Your task to perform on an android device: add a contact in the contacts app Image 0: 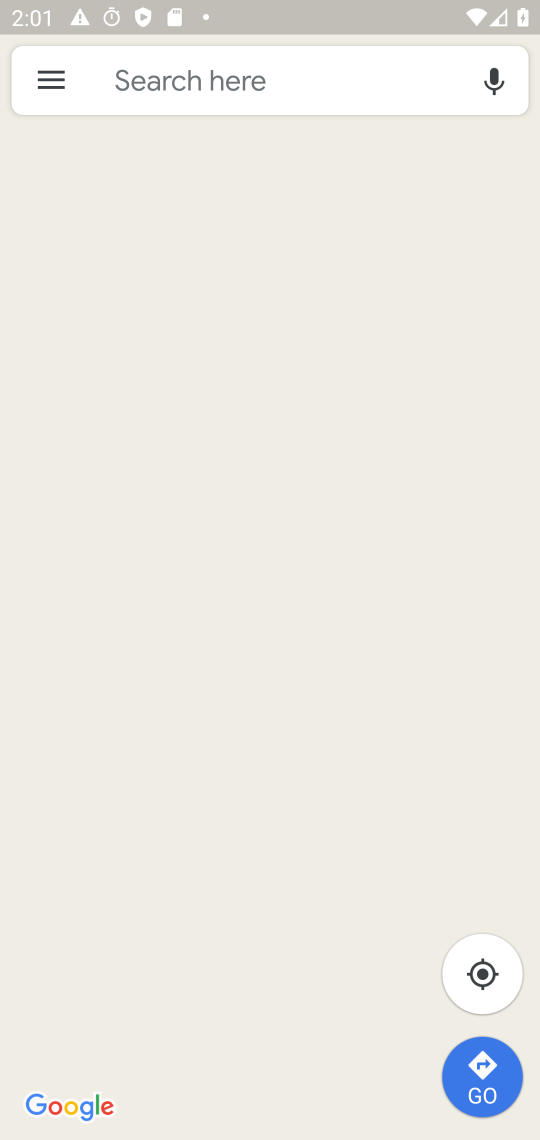
Step 0: press home button
Your task to perform on an android device: add a contact in the contacts app Image 1: 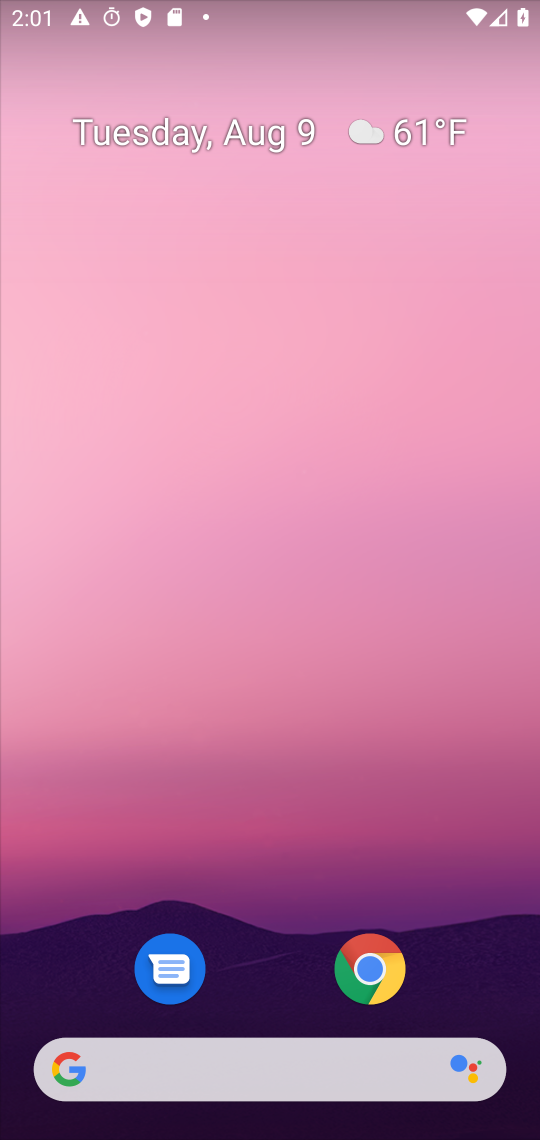
Step 1: drag from (348, 1113) to (312, 191)
Your task to perform on an android device: add a contact in the contacts app Image 2: 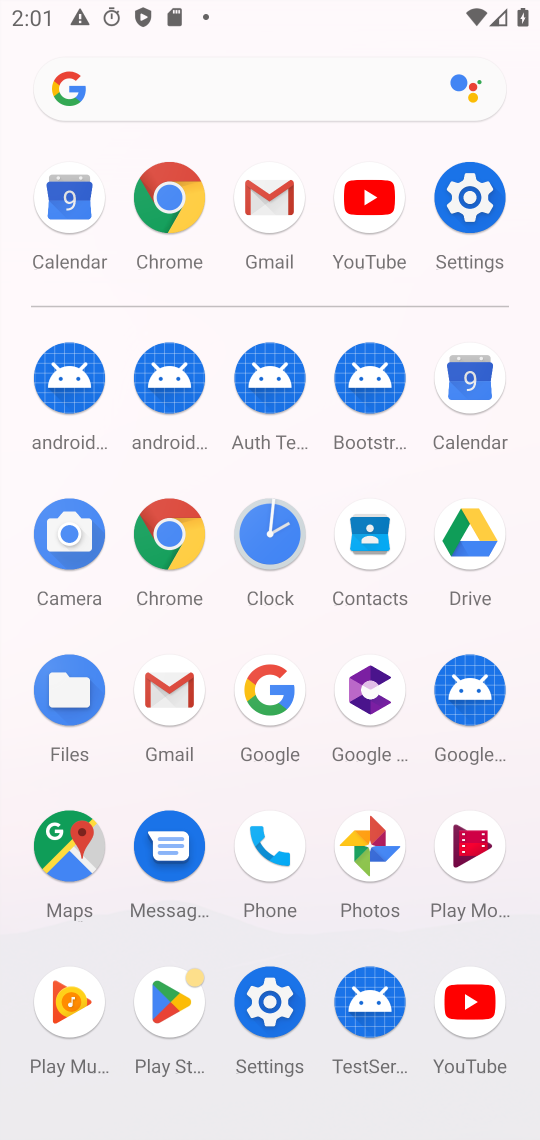
Step 2: click (255, 856)
Your task to perform on an android device: add a contact in the contacts app Image 3: 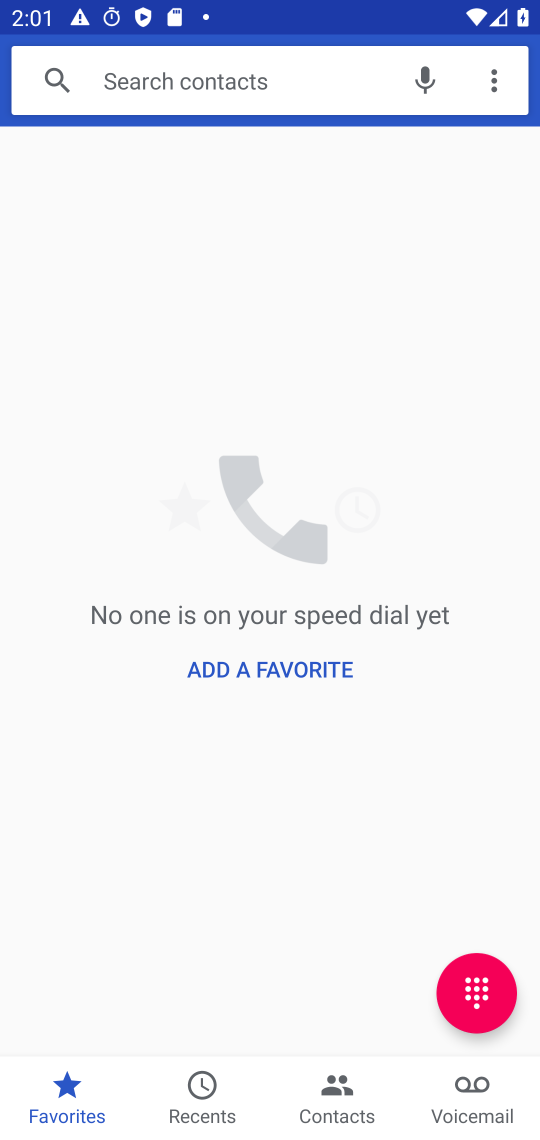
Step 3: click (326, 1083)
Your task to perform on an android device: add a contact in the contacts app Image 4: 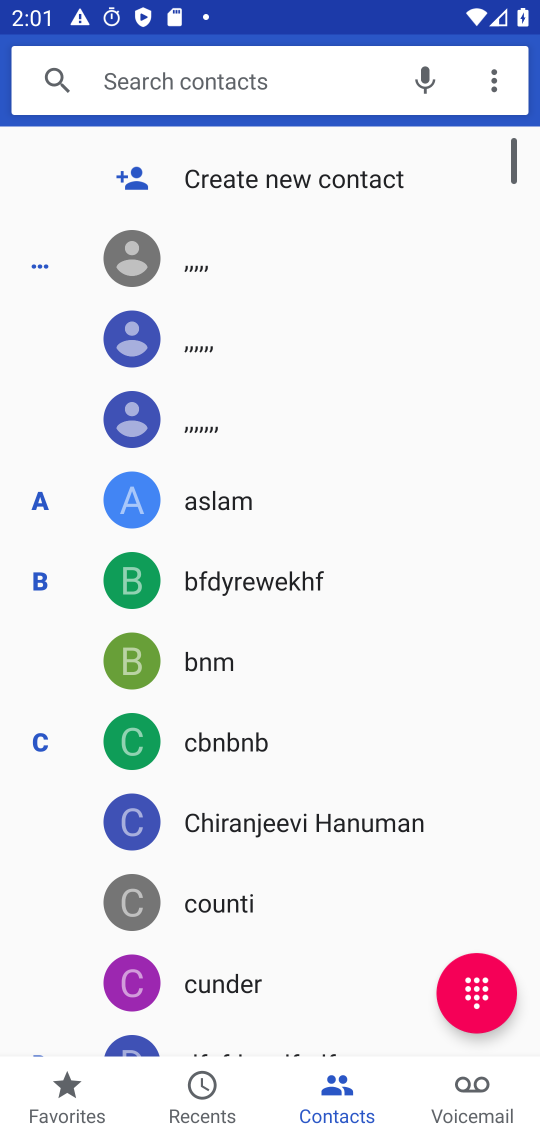
Step 4: click (279, 184)
Your task to perform on an android device: add a contact in the contacts app Image 5: 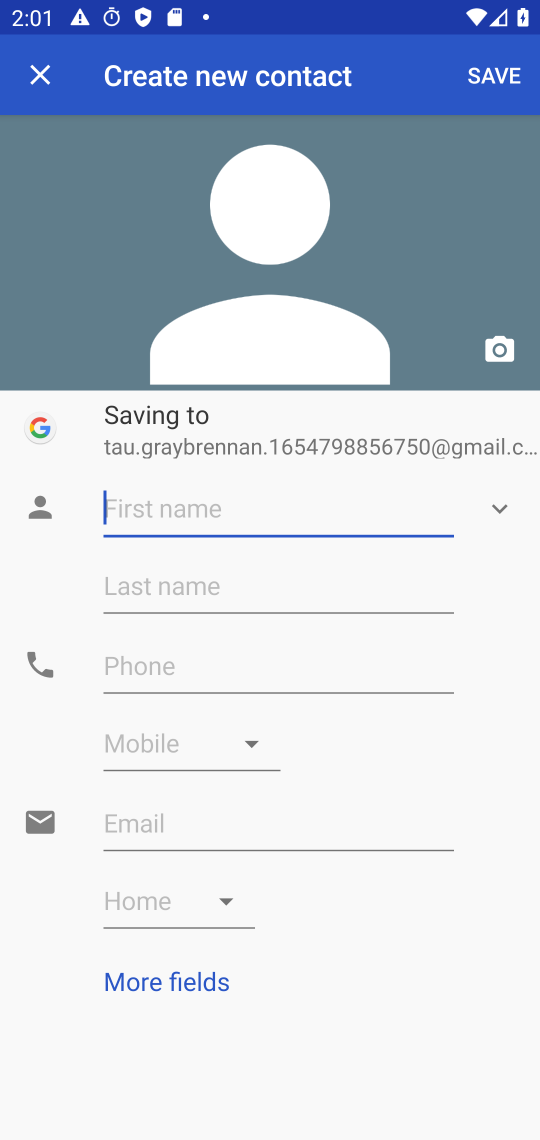
Step 5: click (150, 504)
Your task to perform on an android device: add a contact in the contacts app Image 6: 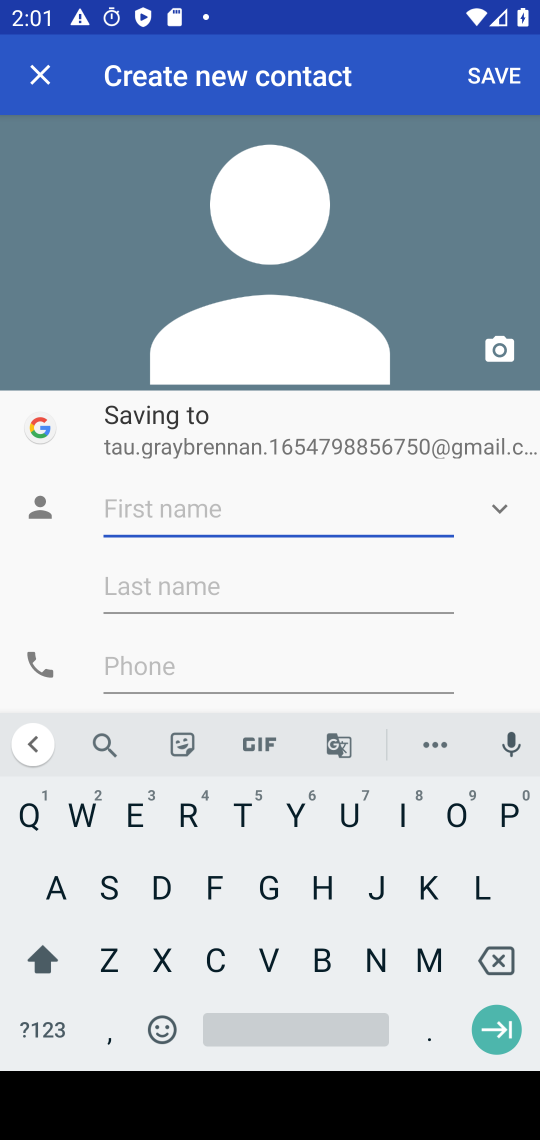
Step 6: click (188, 834)
Your task to perform on an android device: add a contact in the contacts app Image 7: 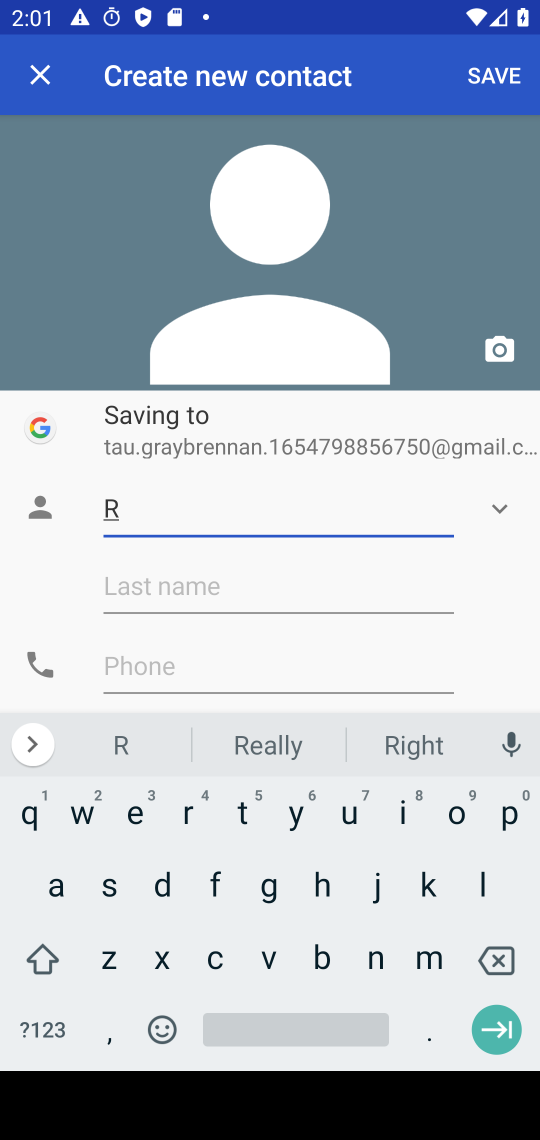
Step 7: click (288, 861)
Your task to perform on an android device: add a contact in the contacts app Image 8: 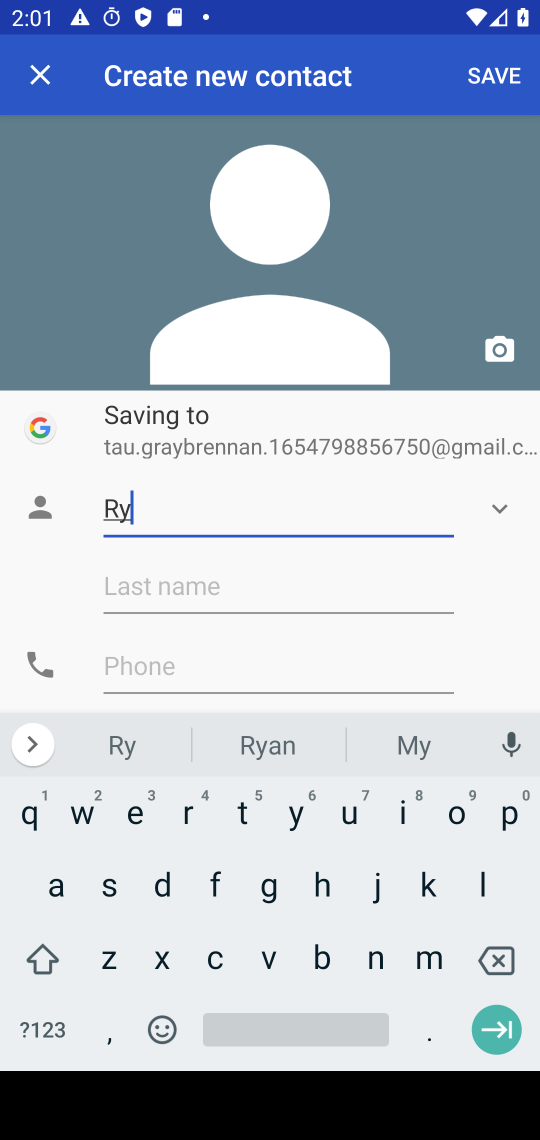
Step 8: click (288, 861)
Your task to perform on an android device: add a contact in the contacts app Image 9: 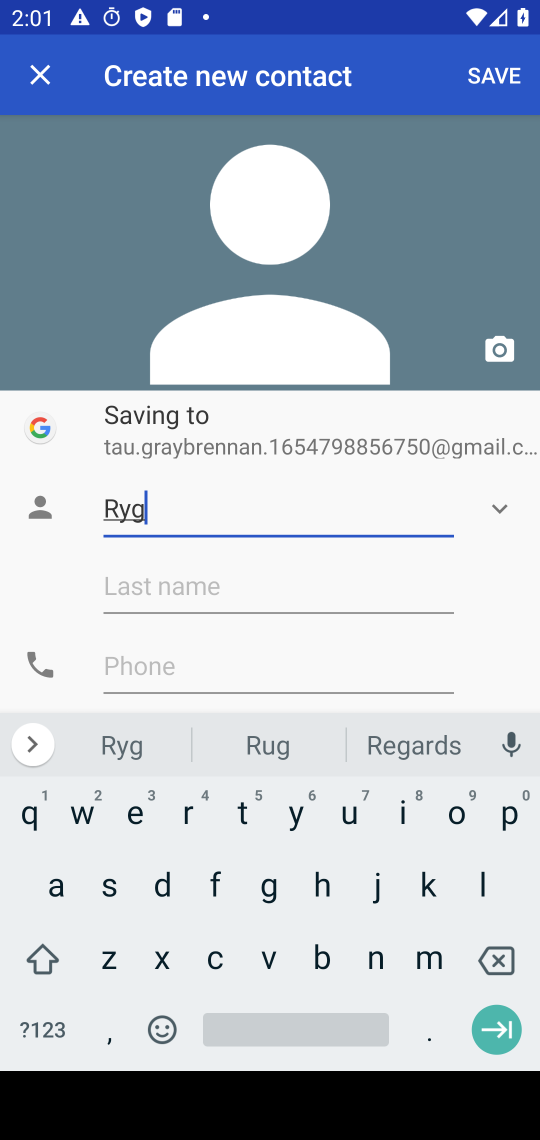
Step 9: click (206, 857)
Your task to perform on an android device: add a contact in the contacts app Image 10: 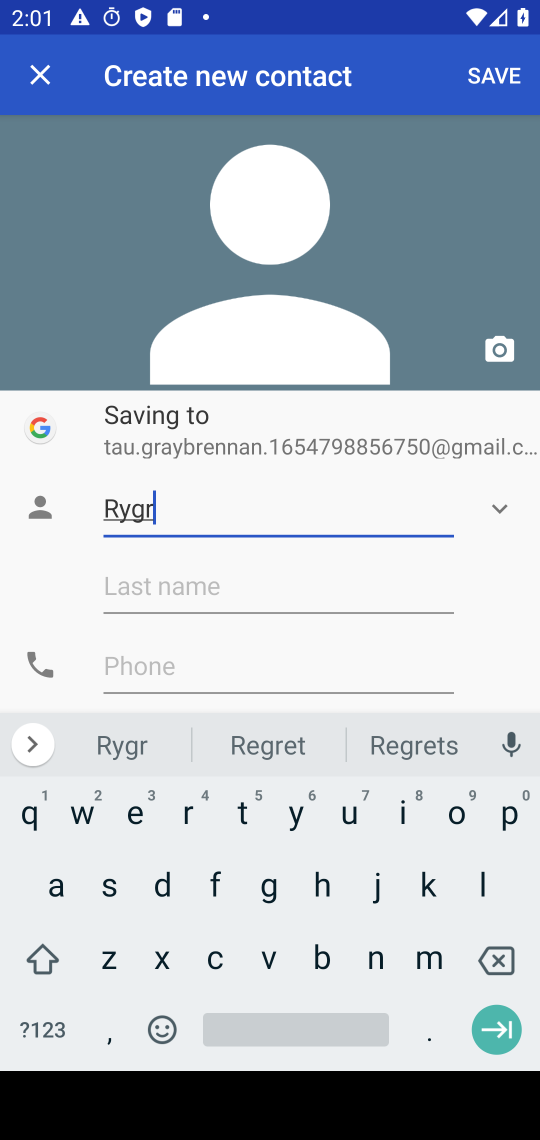
Step 10: click (335, 850)
Your task to perform on an android device: add a contact in the contacts app Image 11: 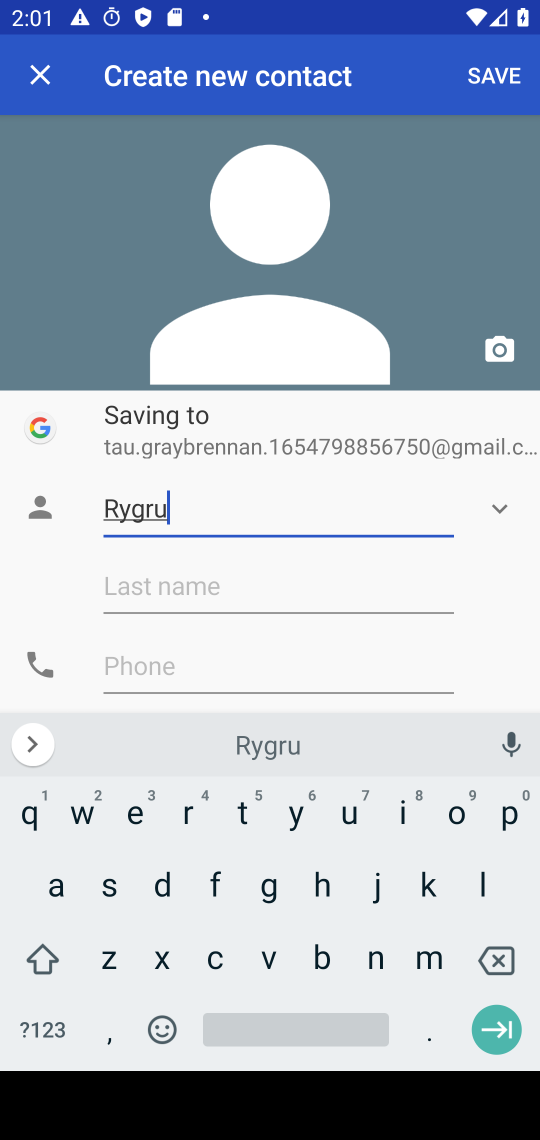
Step 11: click (172, 660)
Your task to perform on an android device: add a contact in the contacts app Image 12: 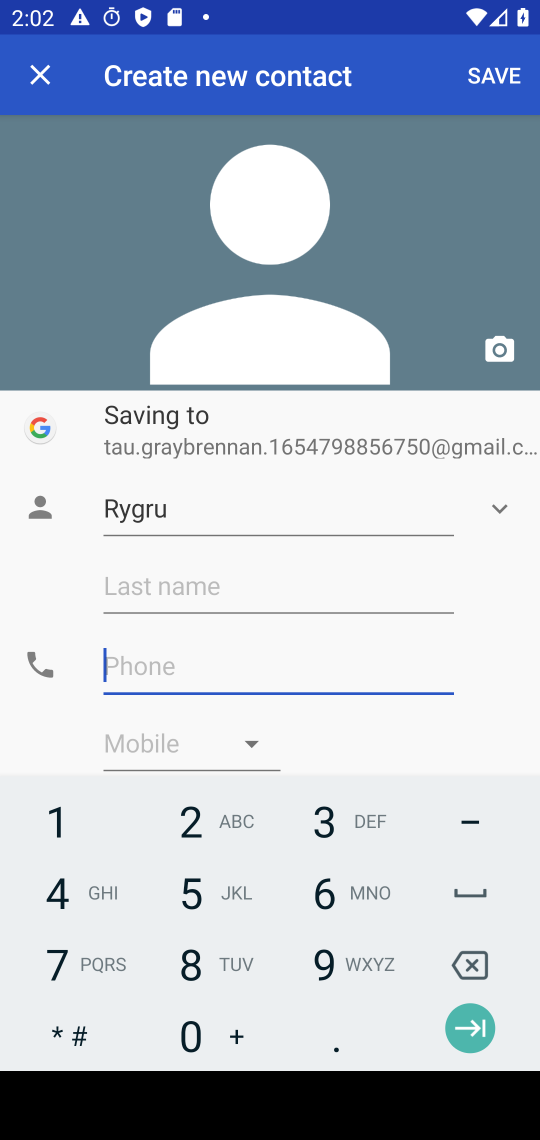
Step 12: click (370, 971)
Your task to perform on an android device: add a contact in the contacts app Image 13: 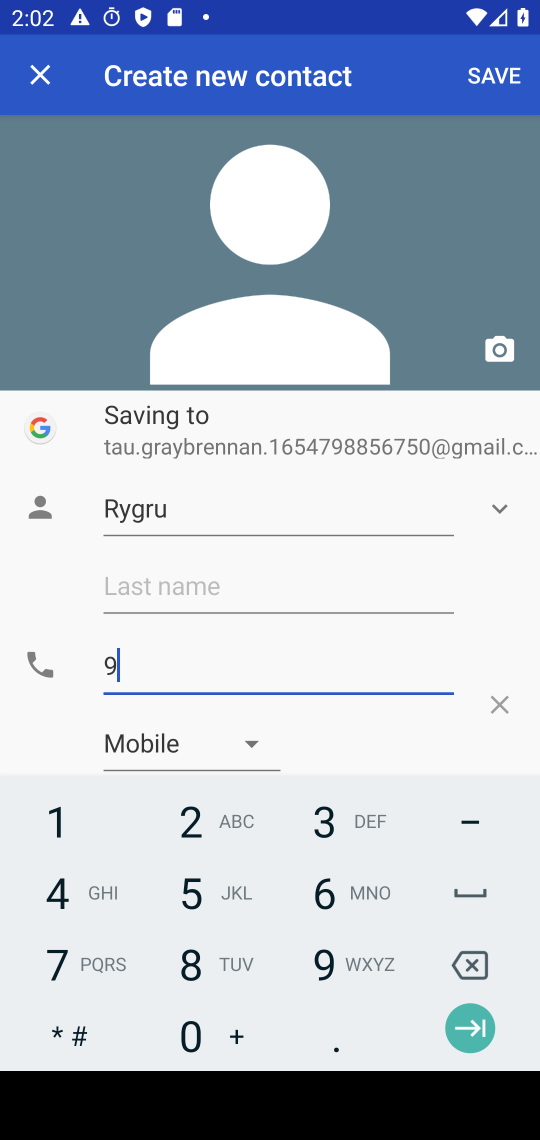
Step 13: click (294, 881)
Your task to perform on an android device: add a contact in the contacts app Image 14: 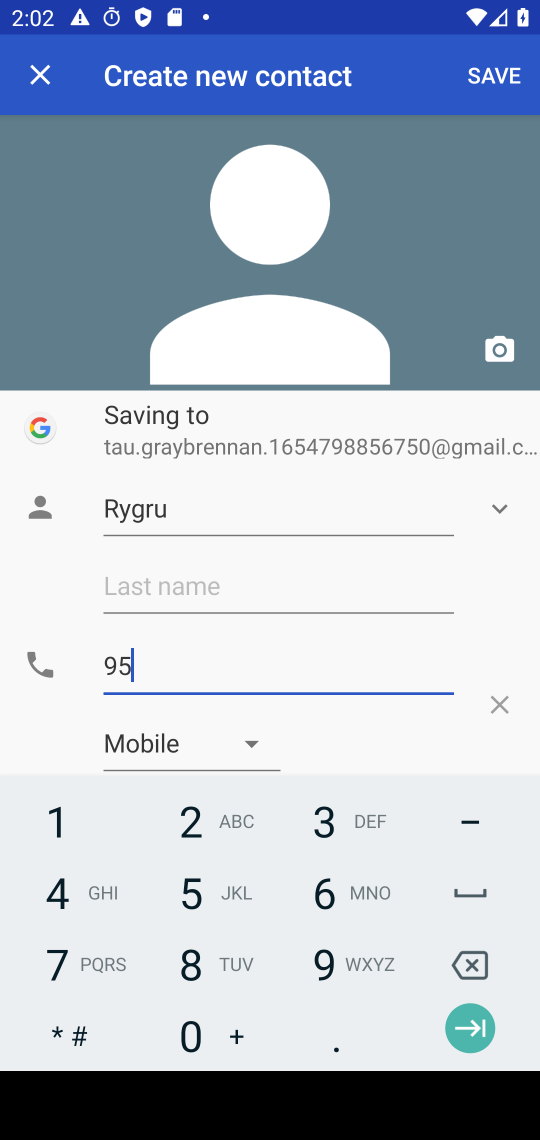
Step 14: click (266, 885)
Your task to perform on an android device: add a contact in the contacts app Image 15: 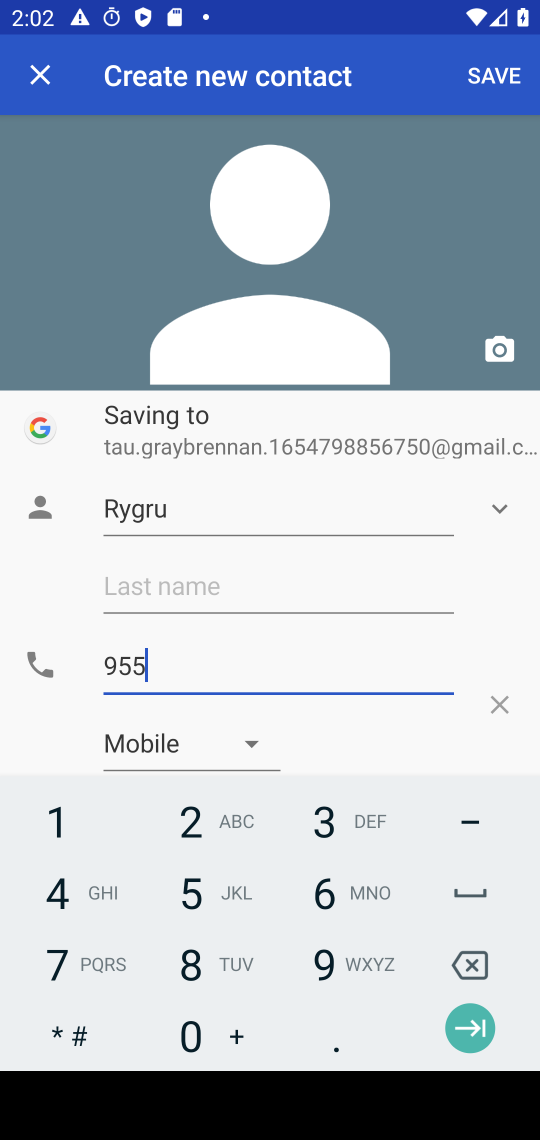
Step 15: click (266, 885)
Your task to perform on an android device: add a contact in the contacts app Image 16: 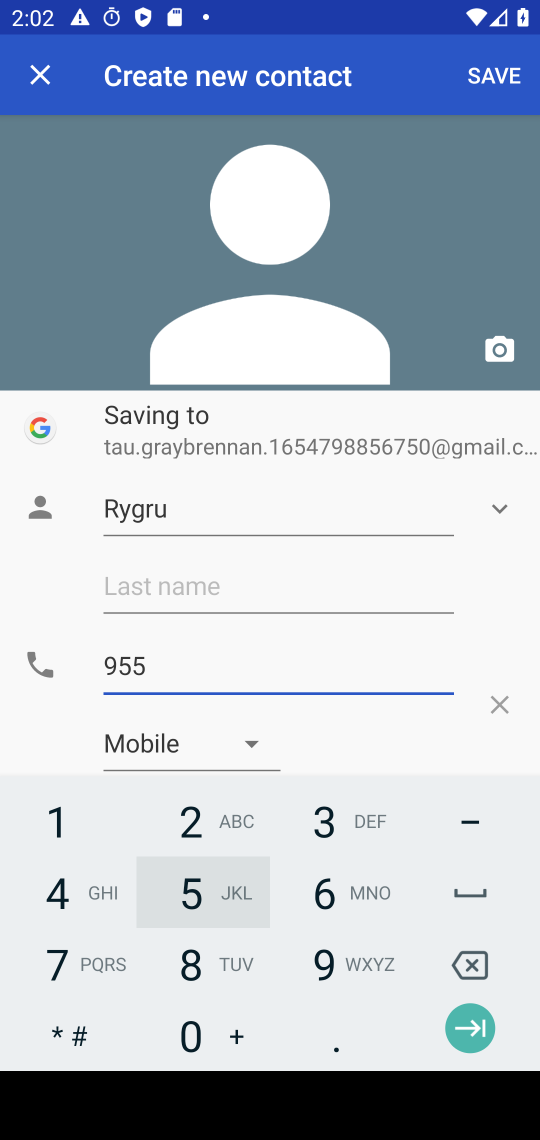
Step 16: click (266, 885)
Your task to perform on an android device: add a contact in the contacts app Image 17: 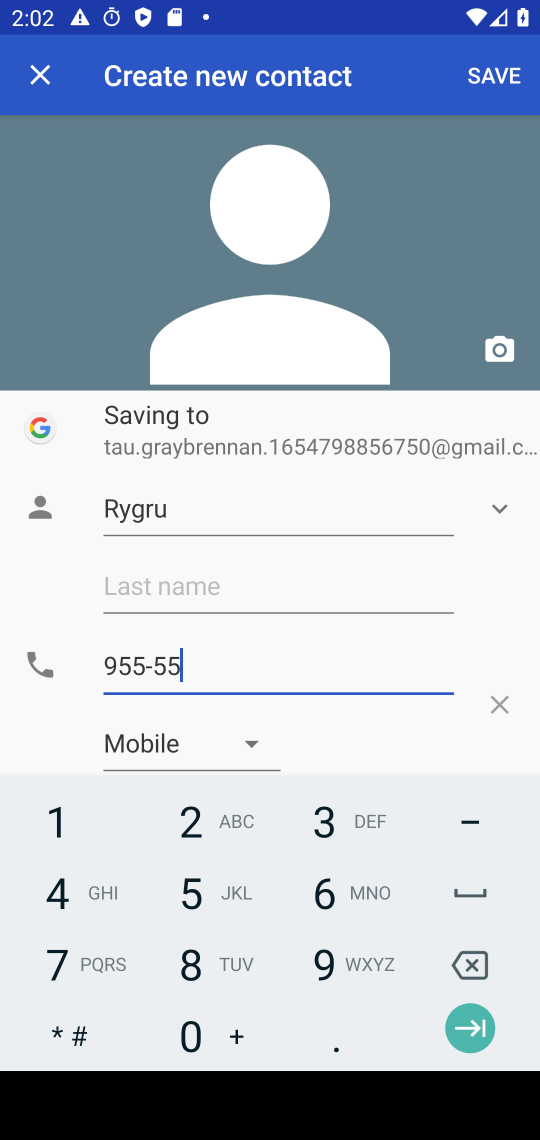
Step 17: click (317, 829)
Your task to perform on an android device: add a contact in the contacts app Image 18: 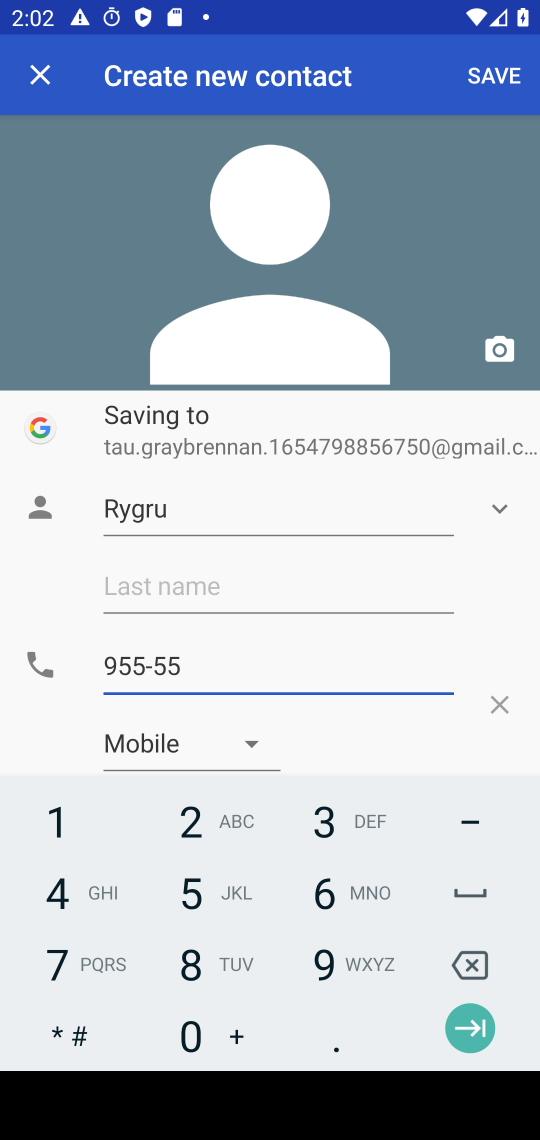
Step 18: click (317, 829)
Your task to perform on an android device: add a contact in the contacts app Image 19: 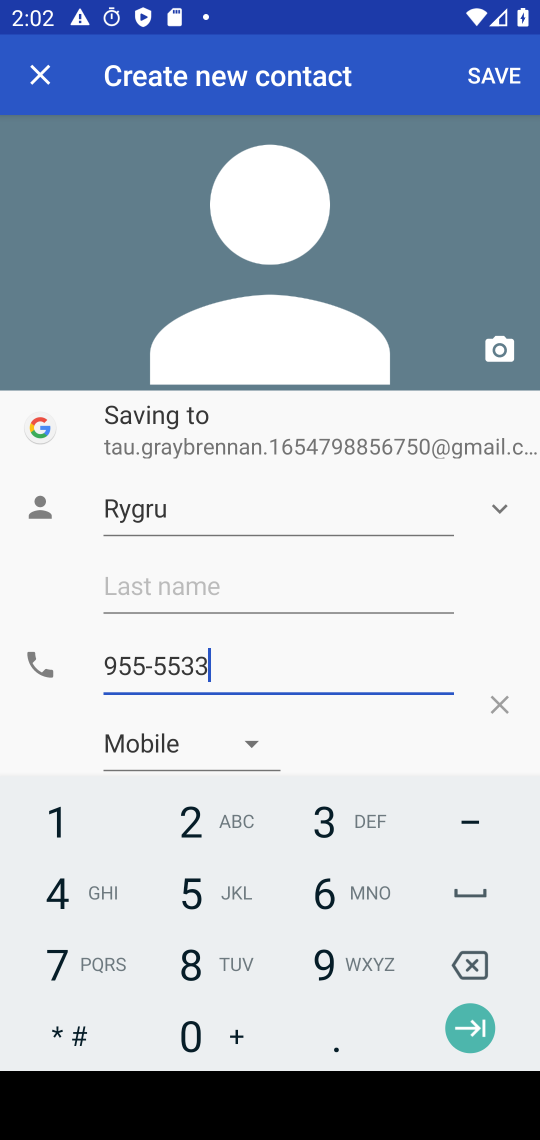
Step 19: click (71, 833)
Your task to perform on an android device: add a contact in the contacts app Image 20: 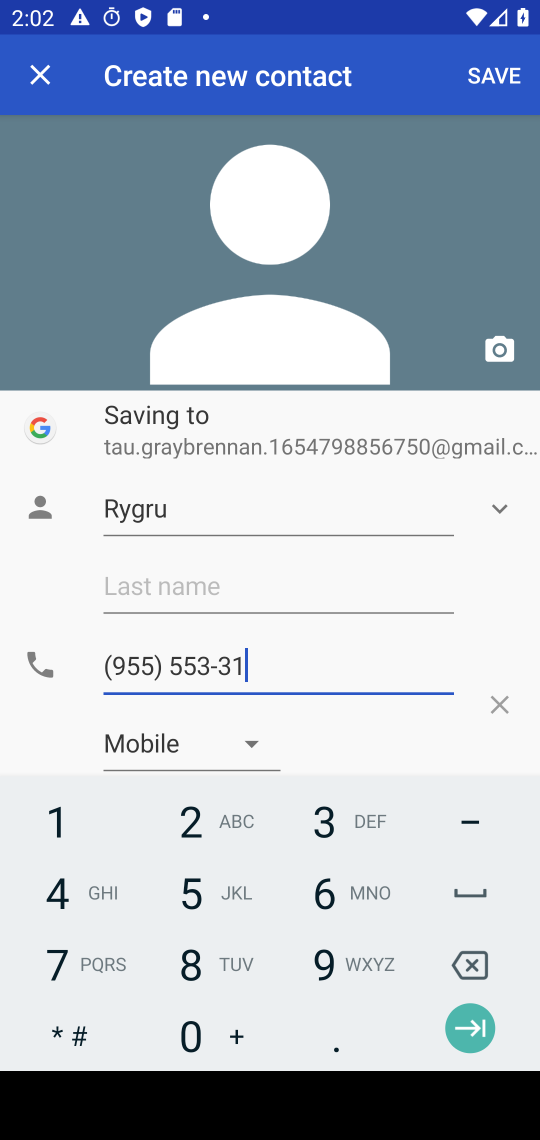
Step 20: click (71, 833)
Your task to perform on an android device: add a contact in the contacts app Image 21: 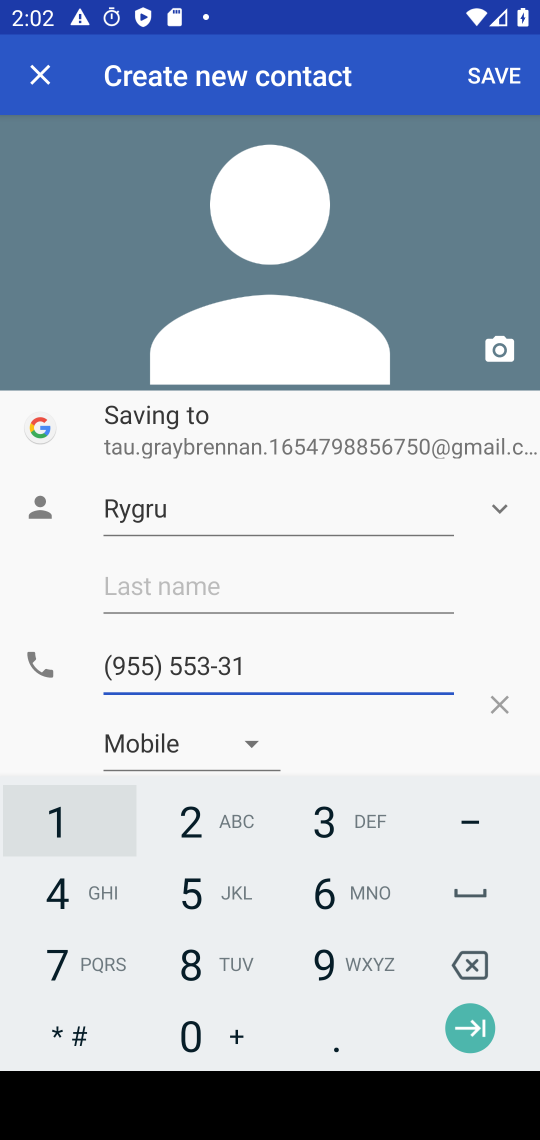
Step 21: click (71, 833)
Your task to perform on an android device: add a contact in the contacts app Image 22: 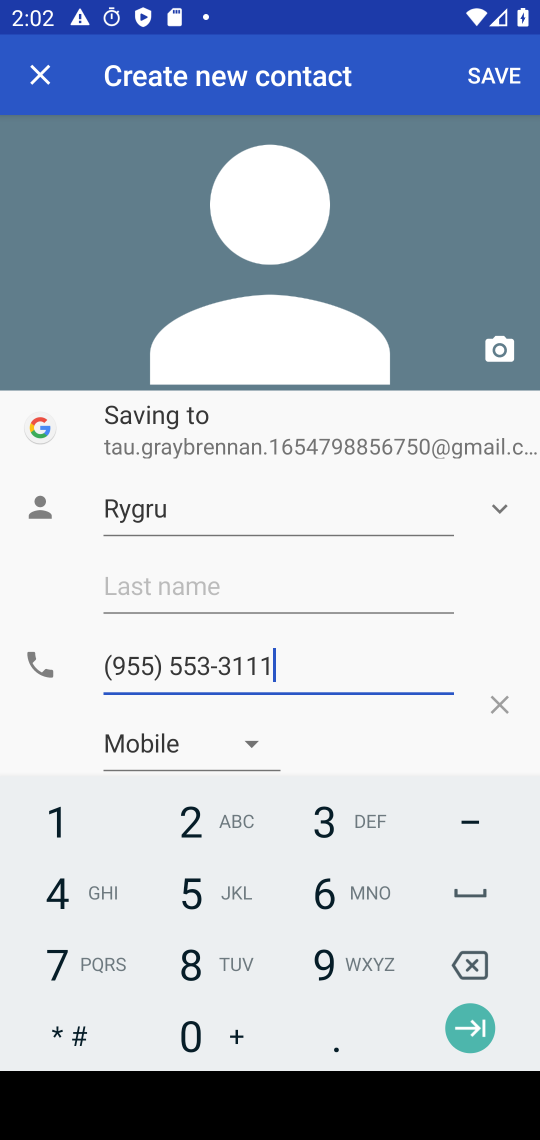
Step 22: click (497, 73)
Your task to perform on an android device: add a contact in the contacts app Image 23: 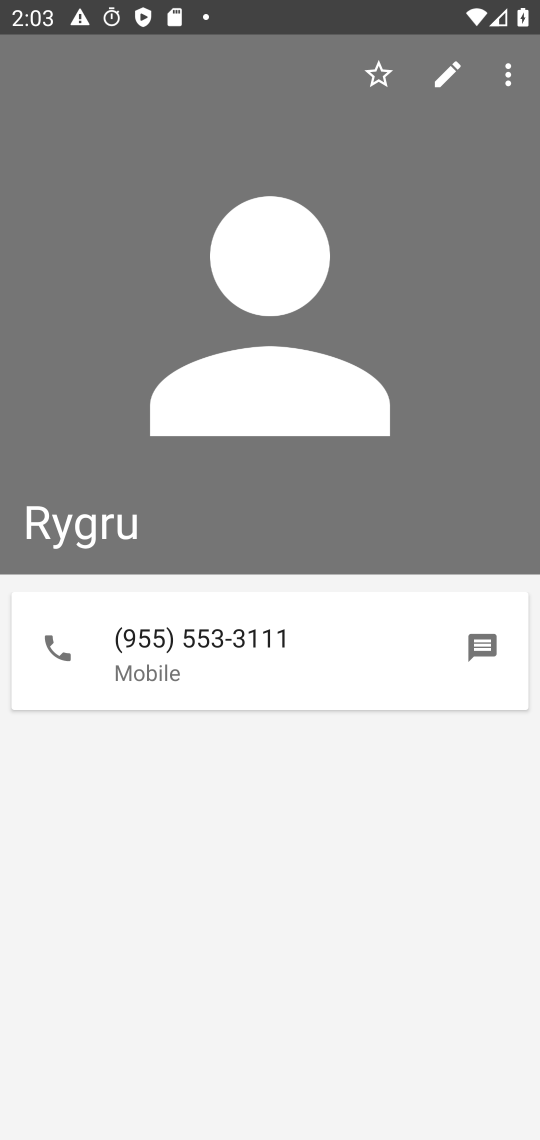
Step 23: task complete